Your task to perform on an android device: turn on the 24-hour format for clock Image 0: 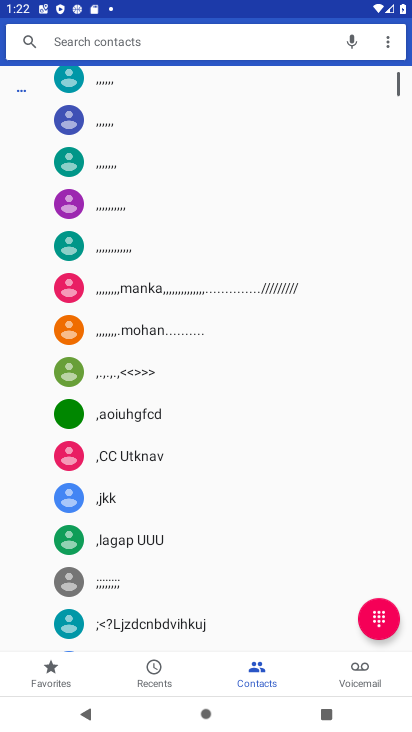
Step 0: press home button
Your task to perform on an android device: turn on the 24-hour format for clock Image 1: 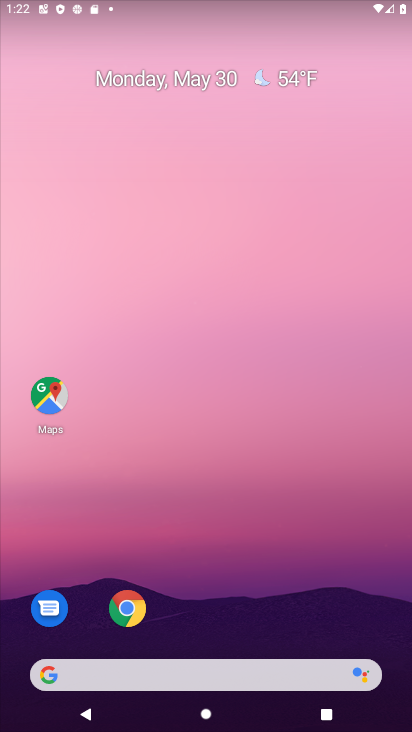
Step 1: drag from (232, 603) to (235, 210)
Your task to perform on an android device: turn on the 24-hour format for clock Image 2: 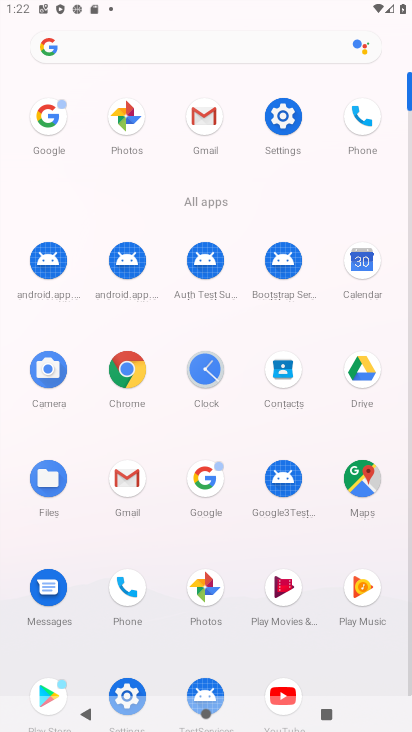
Step 2: click (195, 368)
Your task to perform on an android device: turn on the 24-hour format for clock Image 3: 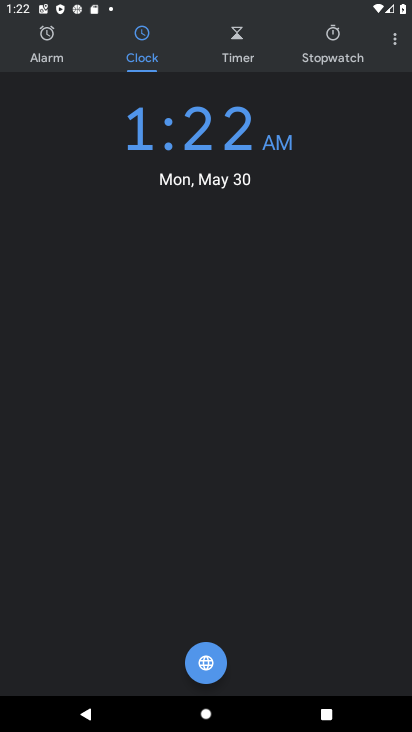
Step 3: click (386, 58)
Your task to perform on an android device: turn on the 24-hour format for clock Image 4: 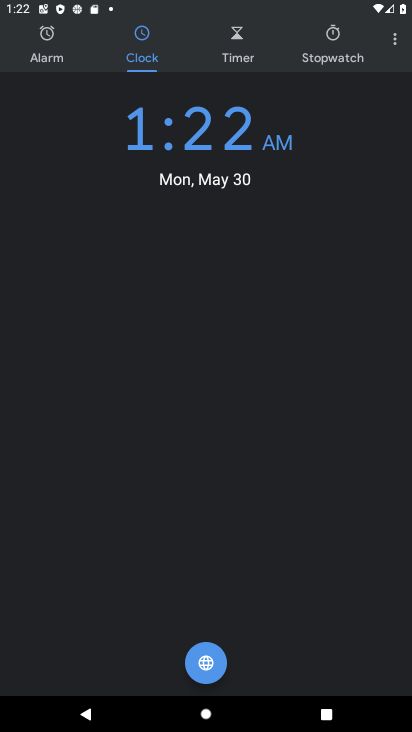
Step 4: click (390, 43)
Your task to perform on an android device: turn on the 24-hour format for clock Image 5: 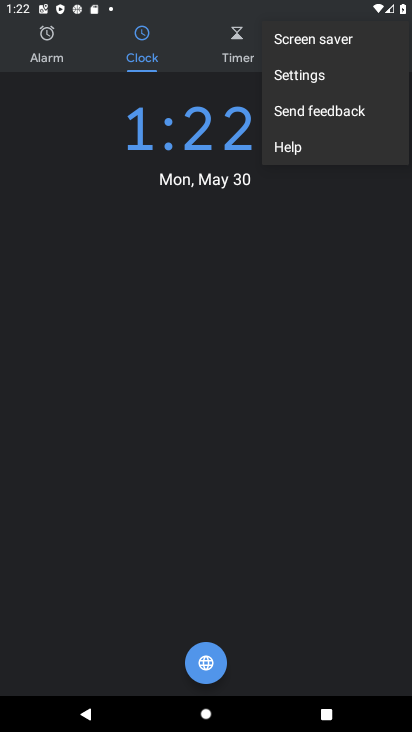
Step 5: click (305, 74)
Your task to perform on an android device: turn on the 24-hour format for clock Image 6: 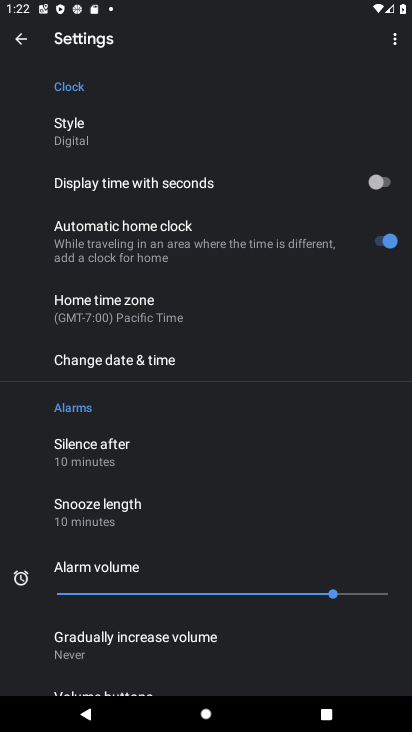
Step 6: click (146, 364)
Your task to perform on an android device: turn on the 24-hour format for clock Image 7: 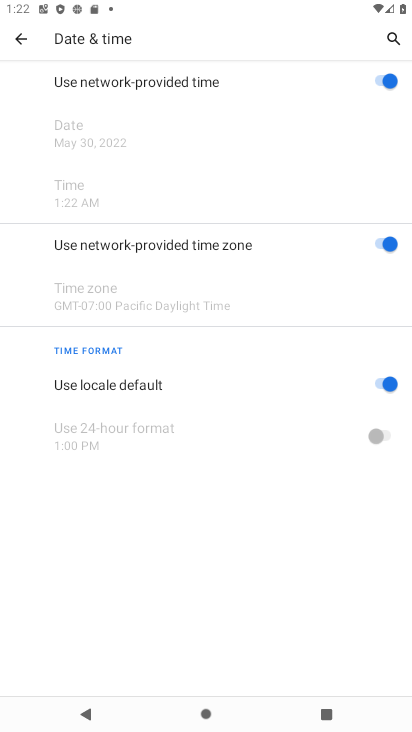
Step 7: click (376, 428)
Your task to perform on an android device: turn on the 24-hour format for clock Image 8: 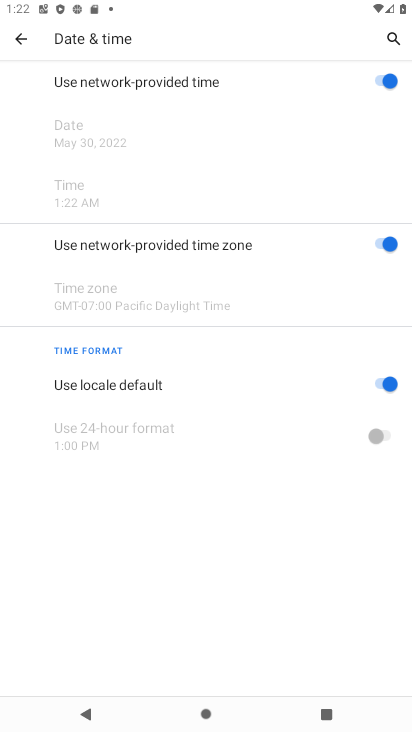
Step 8: click (371, 441)
Your task to perform on an android device: turn on the 24-hour format for clock Image 9: 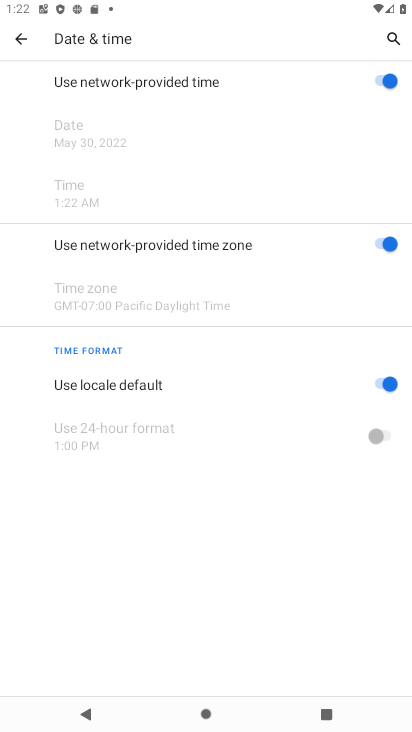
Step 9: click (377, 385)
Your task to perform on an android device: turn on the 24-hour format for clock Image 10: 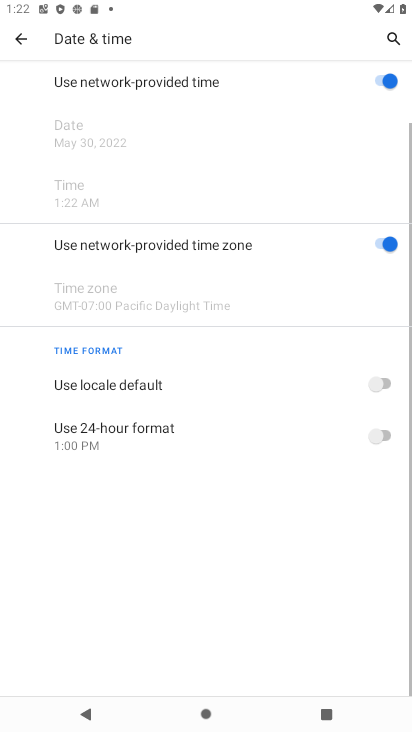
Step 10: click (389, 432)
Your task to perform on an android device: turn on the 24-hour format for clock Image 11: 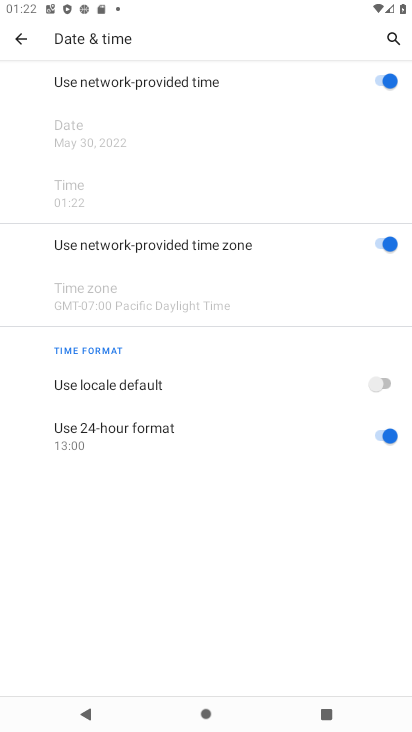
Step 11: task complete